Your task to perform on an android device: change the upload size in google photos Image 0: 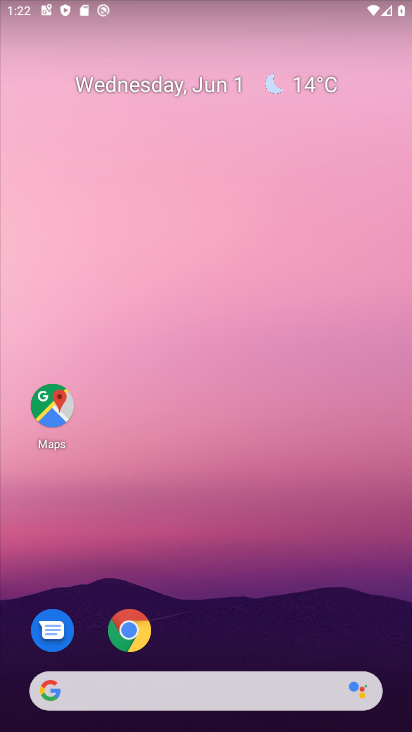
Step 0: drag from (217, 521) to (248, 90)
Your task to perform on an android device: change the upload size in google photos Image 1: 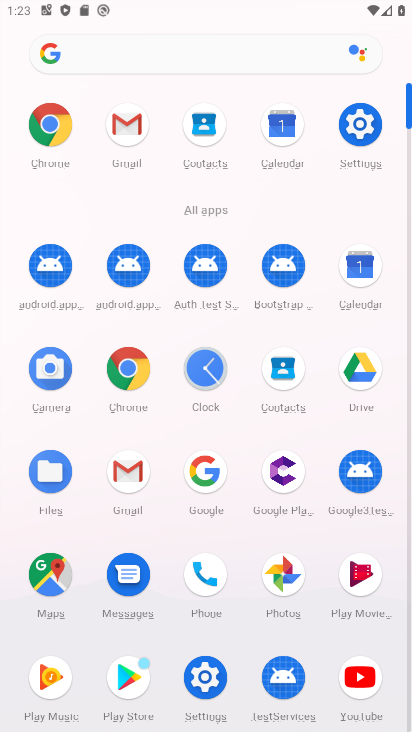
Step 1: click (278, 567)
Your task to perform on an android device: change the upload size in google photos Image 2: 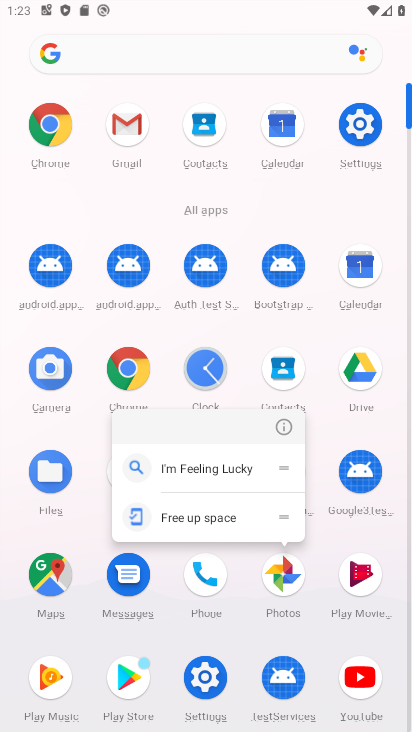
Step 2: click (281, 567)
Your task to perform on an android device: change the upload size in google photos Image 3: 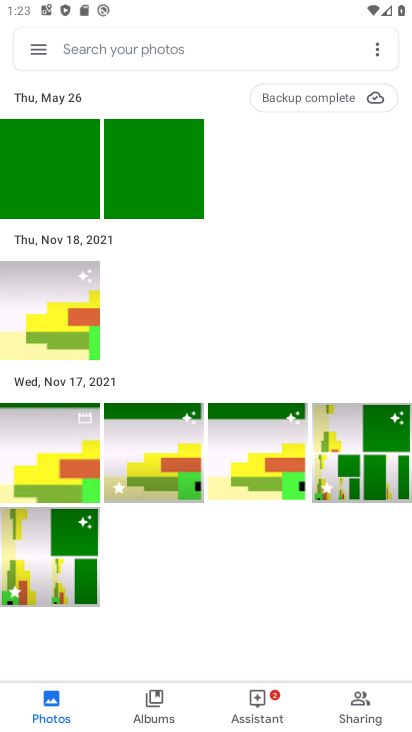
Step 3: click (34, 47)
Your task to perform on an android device: change the upload size in google photos Image 4: 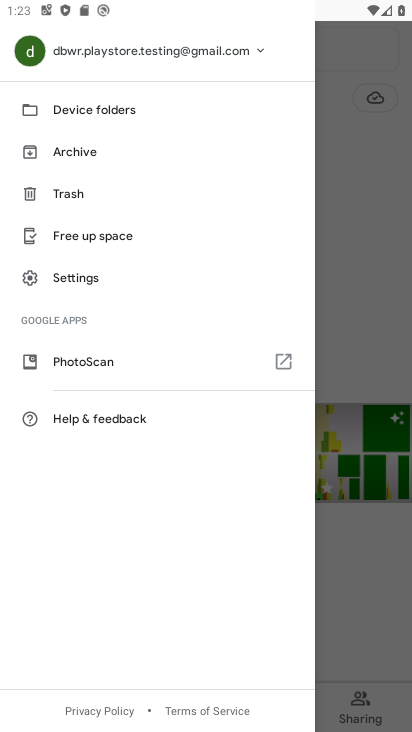
Step 4: click (106, 272)
Your task to perform on an android device: change the upload size in google photos Image 5: 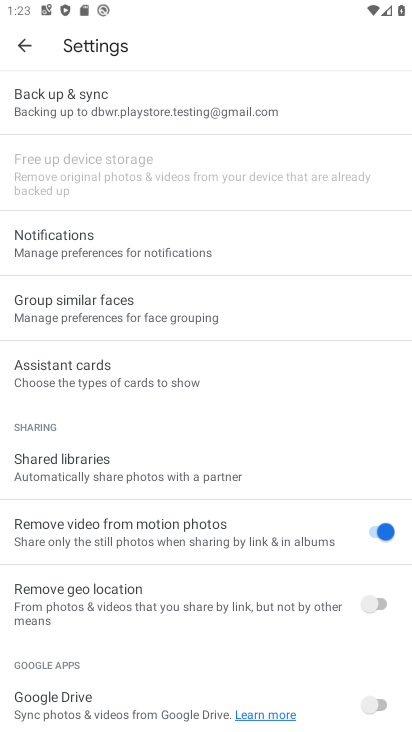
Step 5: click (124, 86)
Your task to perform on an android device: change the upload size in google photos Image 6: 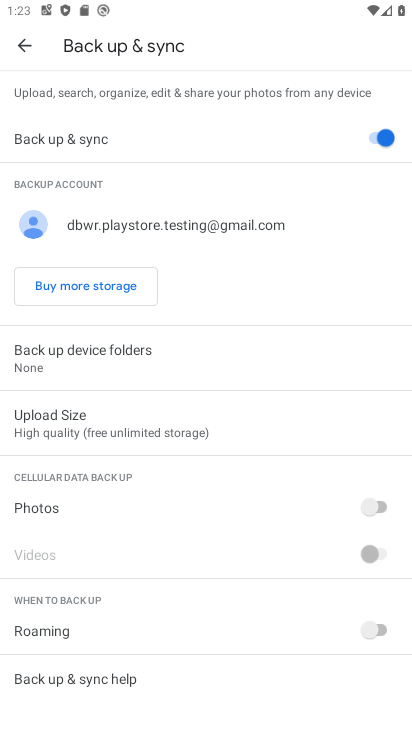
Step 6: click (116, 427)
Your task to perform on an android device: change the upload size in google photos Image 7: 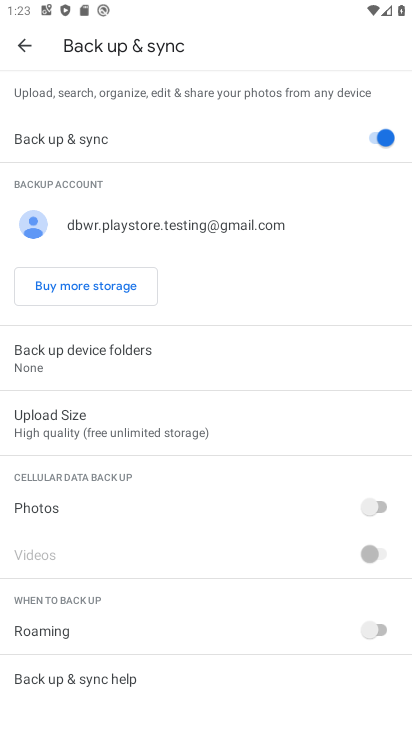
Step 7: click (116, 427)
Your task to perform on an android device: change the upload size in google photos Image 8: 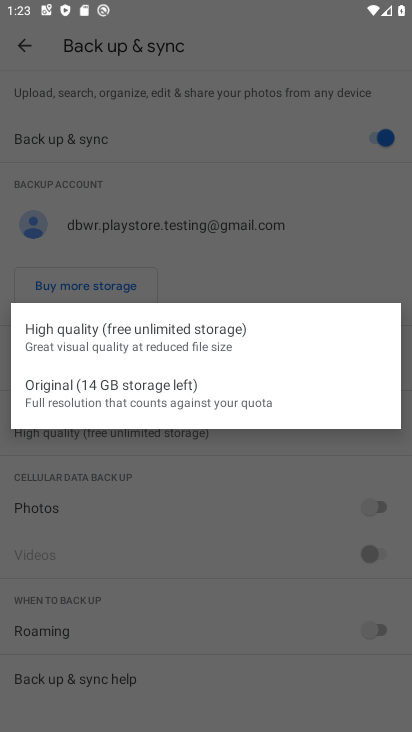
Step 8: click (144, 402)
Your task to perform on an android device: change the upload size in google photos Image 9: 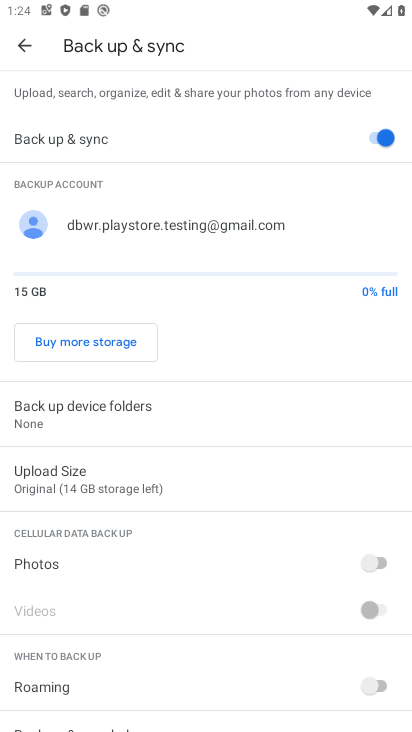
Step 9: task complete